Your task to perform on an android device: turn vacation reply on in the gmail app Image 0: 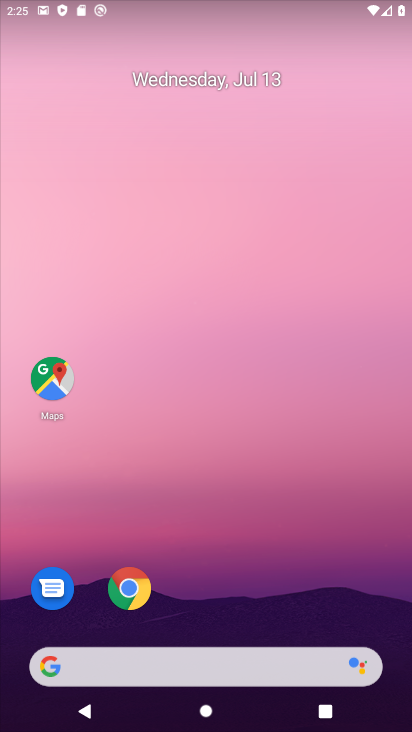
Step 0: drag from (231, 708) to (123, 244)
Your task to perform on an android device: turn vacation reply on in the gmail app Image 1: 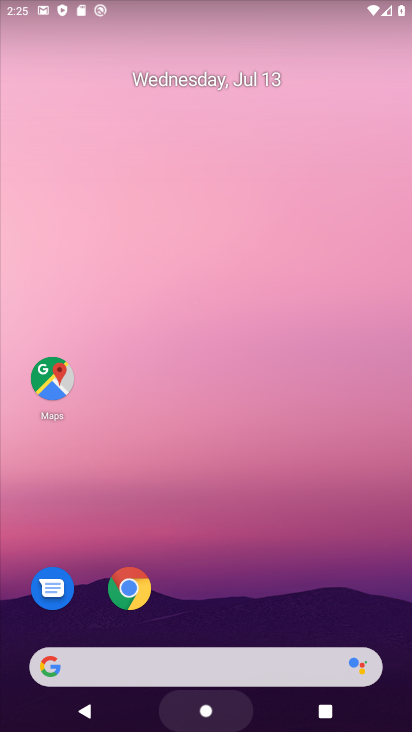
Step 1: click (182, 340)
Your task to perform on an android device: turn vacation reply on in the gmail app Image 2: 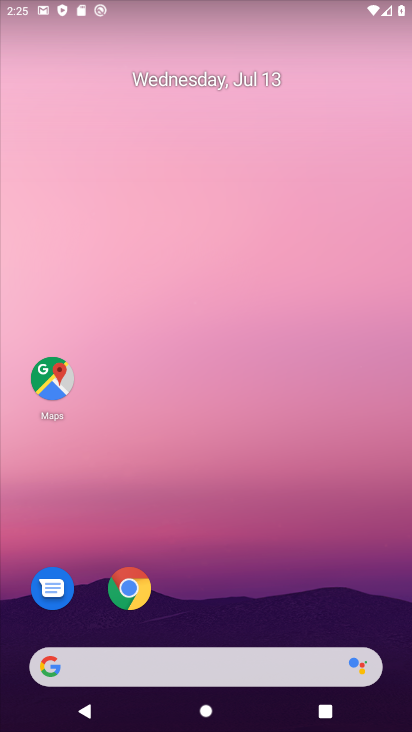
Step 2: drag from (211, 422) to (210, 339)
Your task to perform on an android device: turn vacation reply on in the gmail app Image 3: 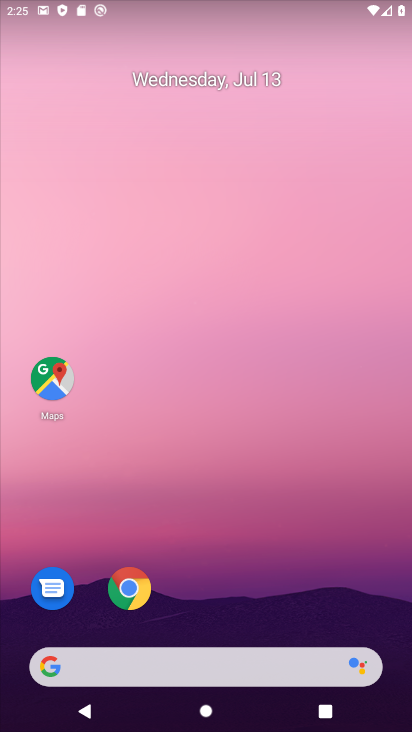
Step 3: drag from (235, 680) to (146, 321)
Your task to perform on an android device: turn vacation reply on in the gmail app Image 4: 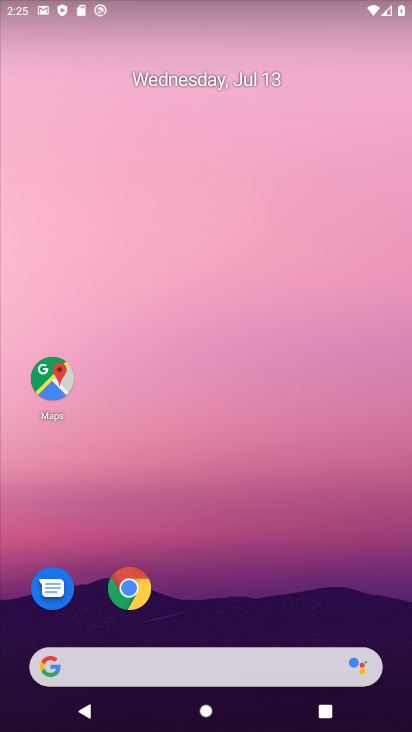
Step 4: drag from (355, 640) to (222, 116)
Your task to perform on an android device: turn vacation reply on in the gmail app Image 5: 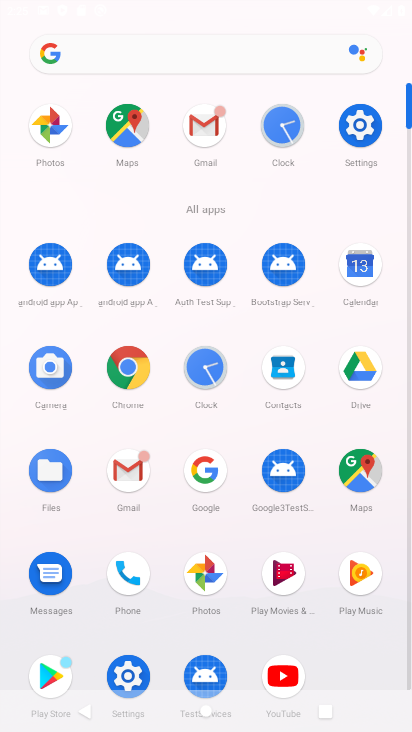
Step 5: drag from (270, 551) to (214, 109)
Your task to perform on an android device: turn vacation reply on in the gmail app Image 6: 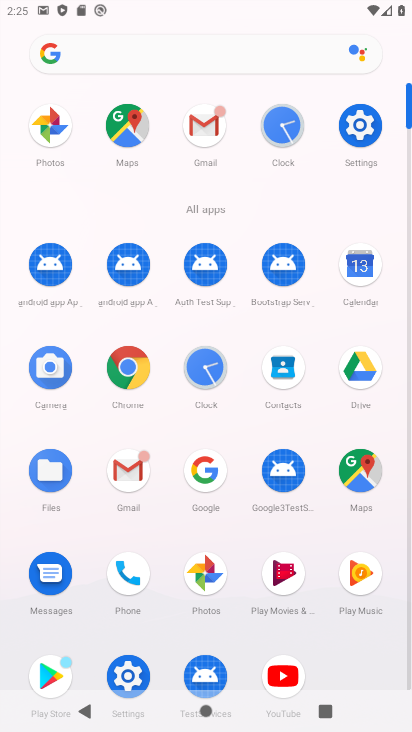
Step 6: drag from (187, 584) to (162, 302)
Your task to perform on an android device: turn vacation reply on in the gmail app Image 7: 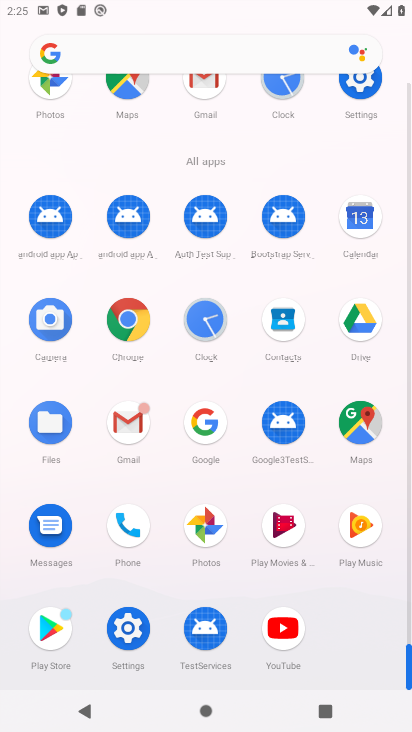
Step 7: click (116, 423)
Your task to perform on an android device: turn vacation reply on in the gmail app Image 8: 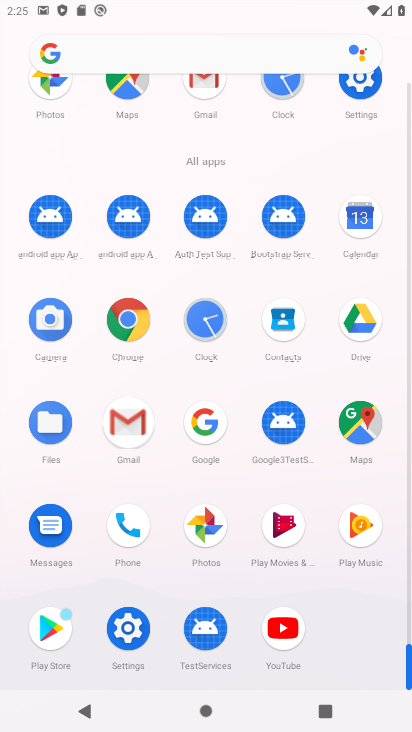
Step 8: click (125, 418)
Your task to perform on an android device: turn vacation reply on in the gmail app Image 9: 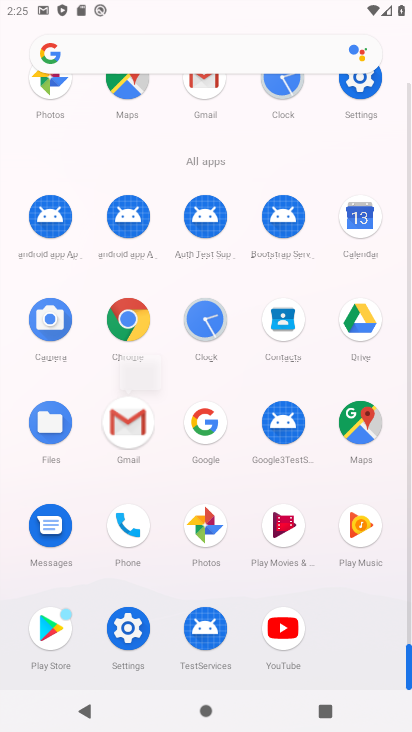
Step 9: click (114, 425)
Your task to perform on an android device: turn vacation reply on in the gmail app Image 10: 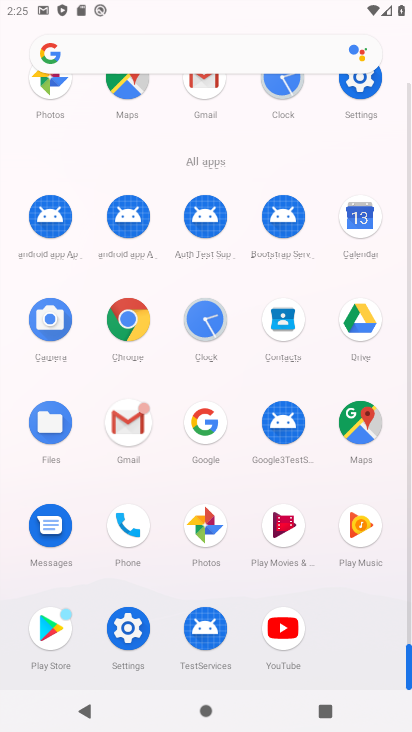
Step 10: click (115, 423)
Your task to perform on an android device: turn vacation reply on in the gmail app Image 11: 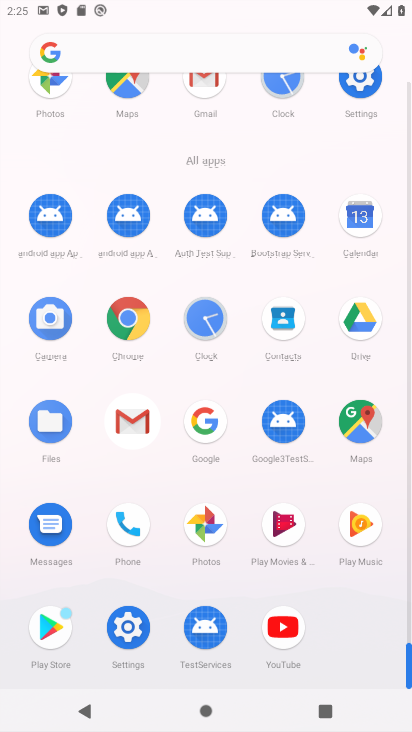
Step 11: click (115, 423)
Your task to perform on an android device: turn vacation reply on in the gmail app Image 12: 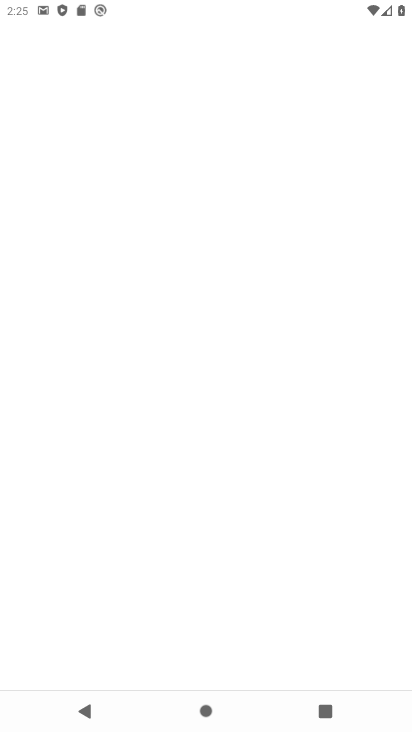
Step 12: click (125, 413)
Your task to perform on an android device: turn vacation reply on in the gmail app Image 13: 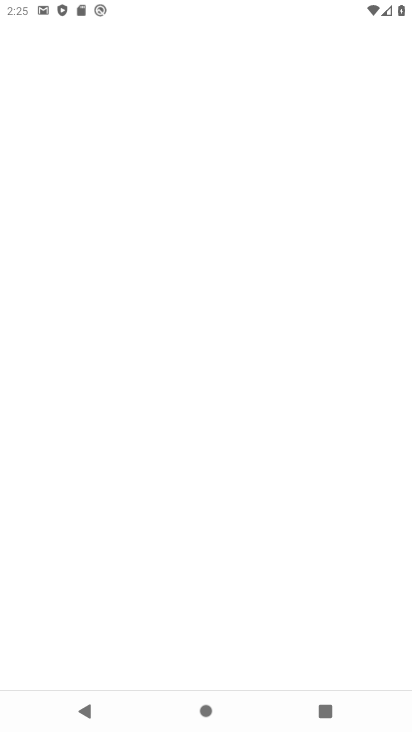
Step 13: click (133, 416)
Your task to perform on an android device: turn vacation reply on in the gmail app Image 14: 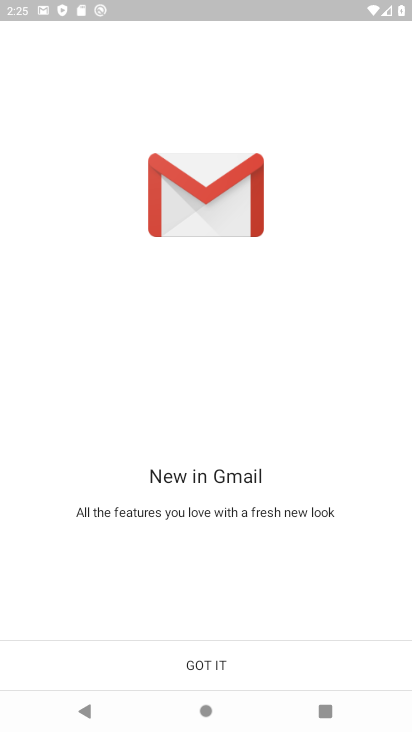
Step 14: click (218, 662)
Your task to perform on an android device: turn vacation reply on in the gmail app Image 15: 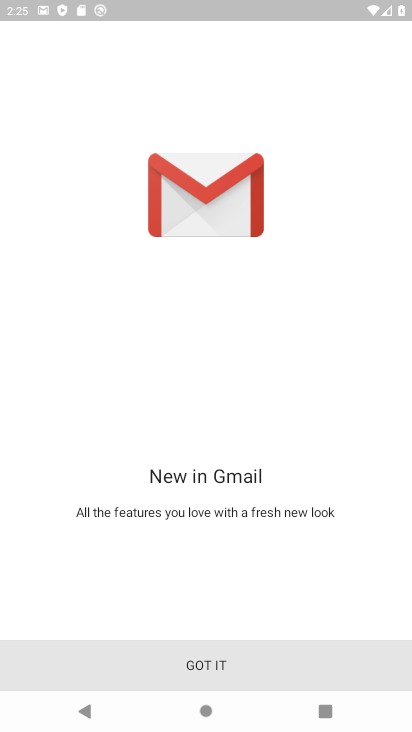
Step 15: click (218, 662)
Your task to perform on an android device: turn vacation reply on in the gmail app Image 16: 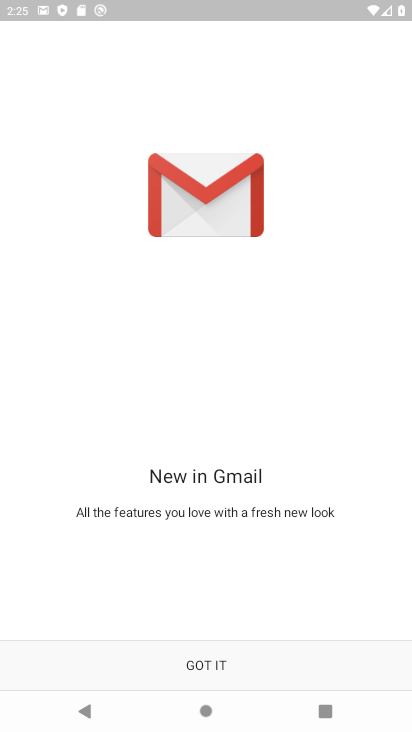
Step 16: click (219, 662)
Your task to perform on an android device: turn vacation reply on in the gmail app Image 17: 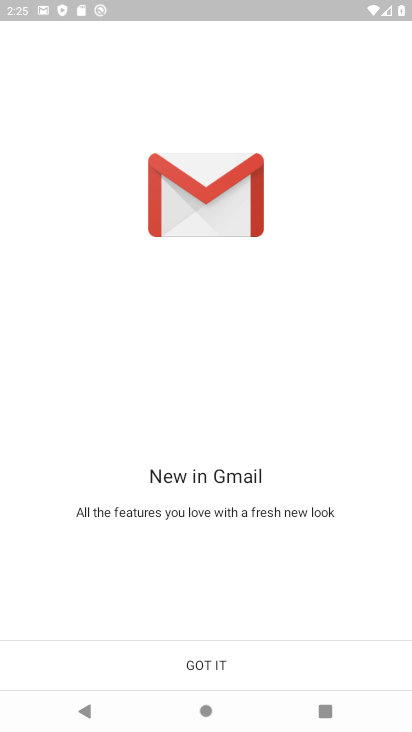
Step 17: click (220, 662)
Your task to perform on an android device: turn vacation reply on in the gmail app Image 18: 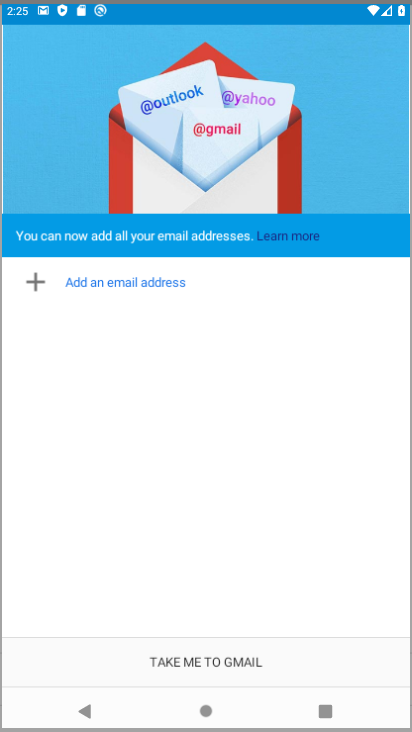
Step 18: click (221, 663)
Your task to perform on an android device: turn vacation reply on in the gmail app Image 19: 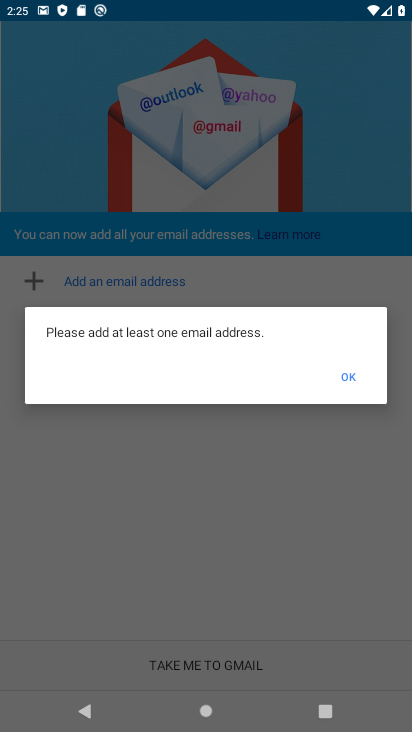
Step 19: click (221, 663)
Your task to perform on an android device: turn vacation reply on in the gmail app Image 20: 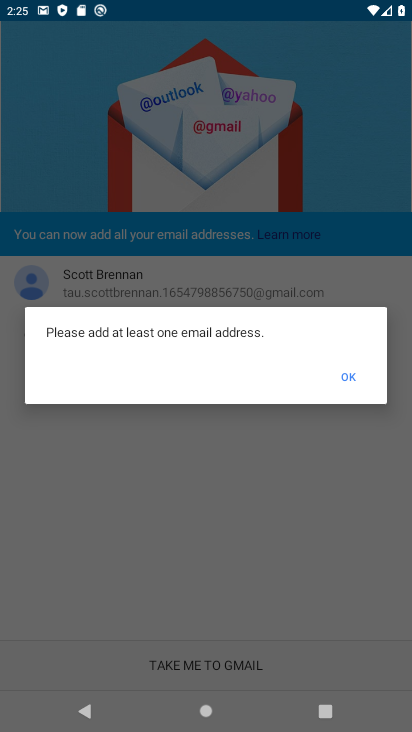
Step 20: click (221, 663)
Your task to perform on an android device: turn vacation reply on in the gmail app Image 21: 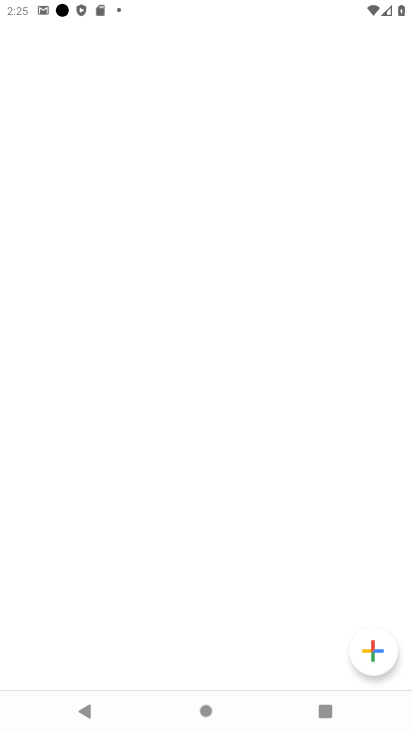
Step 21: click (226, 649)
Your task to perform on an android device: turn vacation reply on in the gmail app Image 22: 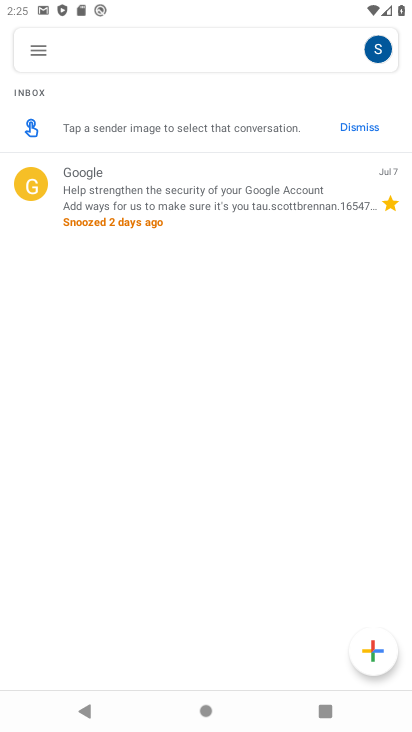
Step 22: click (38, 55)
Your task to perform on an android device: turn vacation reply on in the gmail app Image 23: 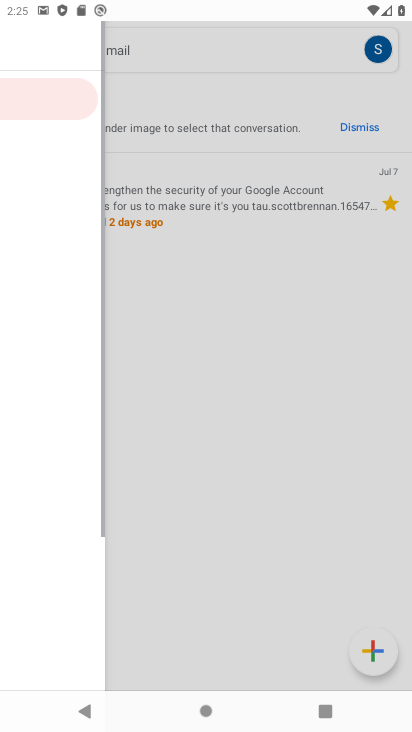
Step 23: click (38, 58)
Your task to perform on an android device: turn vacation reply on in the gmail app Image 24: 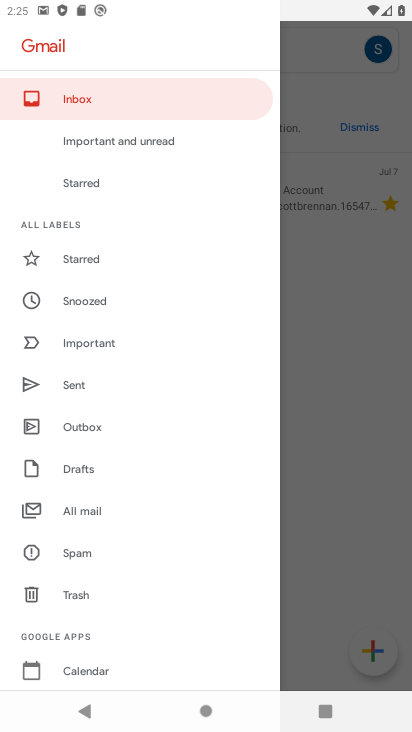
Step 24: drag from (93, 614) to (75, 256)
Your task to perform on an android device: turn vacation reply on in the gmail app Image 25: 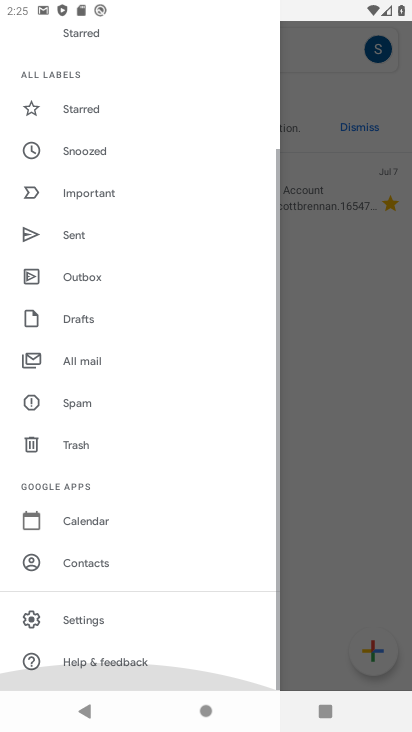
Step 25: drag from (118, 581) to (108, 275)
Your task to perform on an android device: turn vacation reply on in the gmail app Image 26: 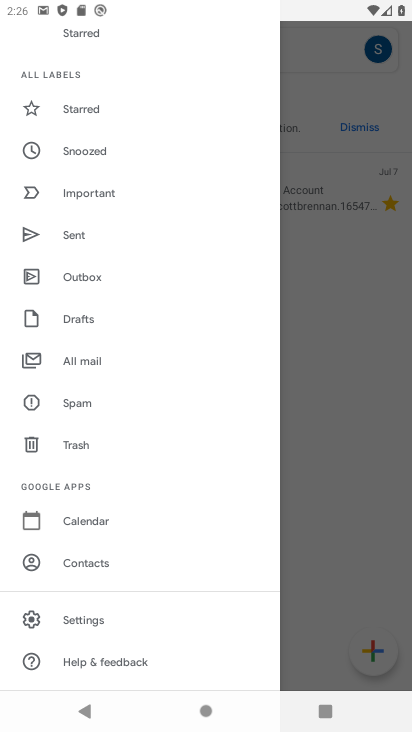
Step 26: drag from (125, 412) to (64, 169)
Your task to perform on an android device: turn vacation reply on in the gmail app Image 27: 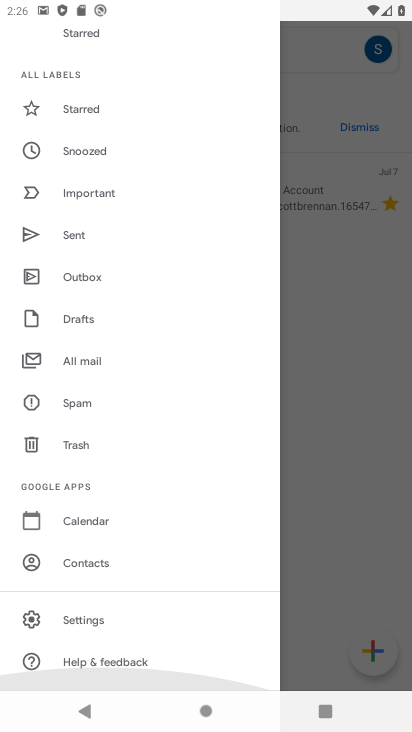
Step 27: drag from (80, 328) to (56, 232)
Your task to perform on an android device: turn vacation reply on in the gmail app Image 28: 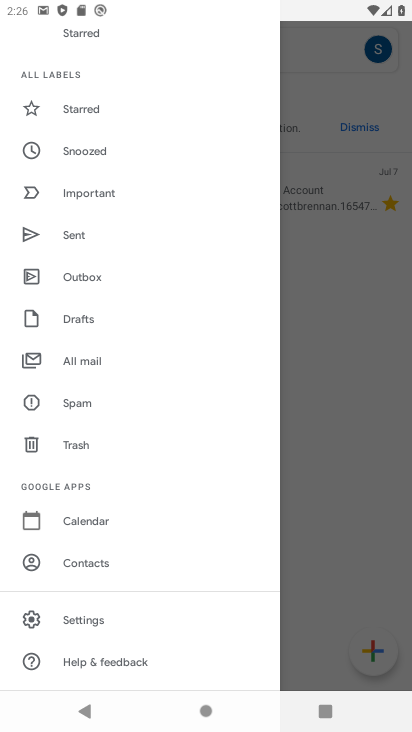
Step 28: click (73, 610)
Your task to perform on an android device: turn vacation reply on in the gmail app Image 29: 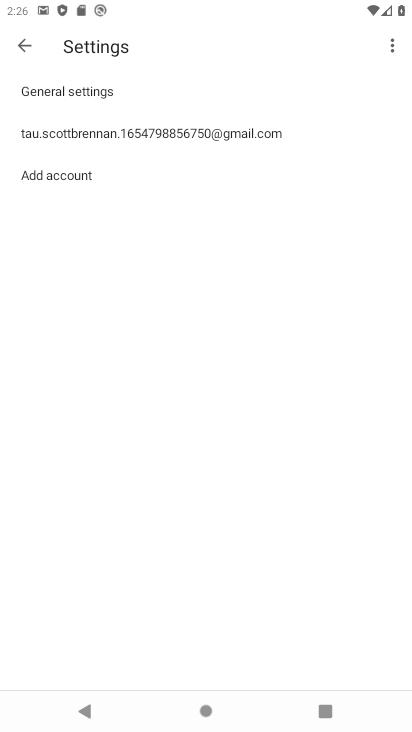
Step 29: click (108, 132)
Your task to perform on an android device: turn vacation reply on in the gmail app Image 30: 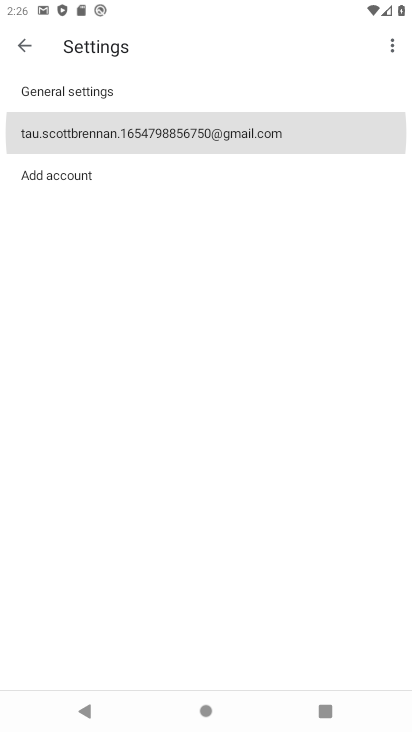
Step 30: click (108, 132)
Your task to perform on an android device: turn vacation reply on in the gmail app Image 31: 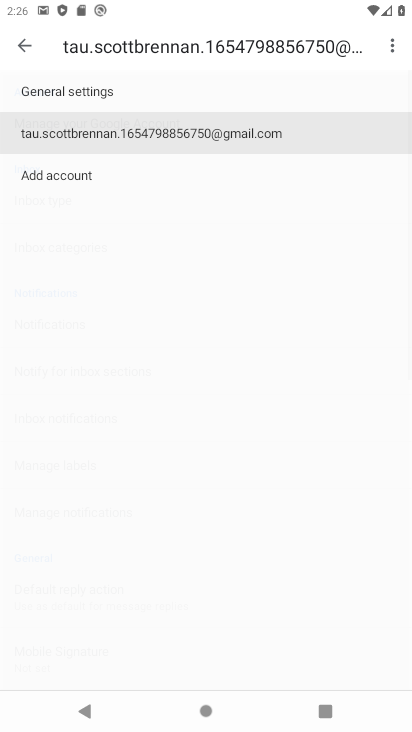
Step 31: click (108, 132)
Your task to perform on an android device: turn vacation reply on in the gmail app Image 32: 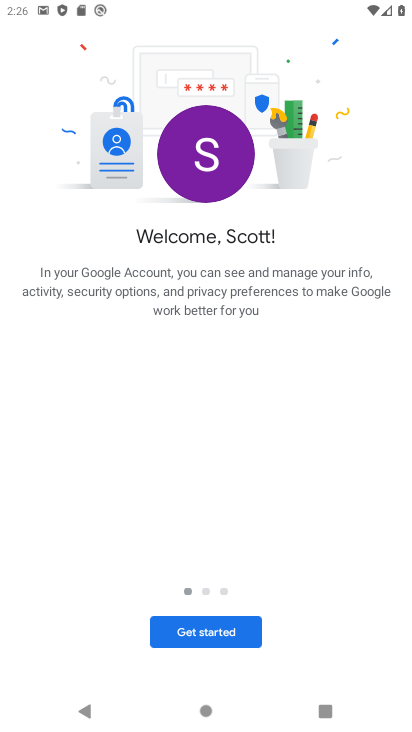
Step 32: press back button
Your task to perform on an android device: turn vacation reply on in the gmail app Image 33: 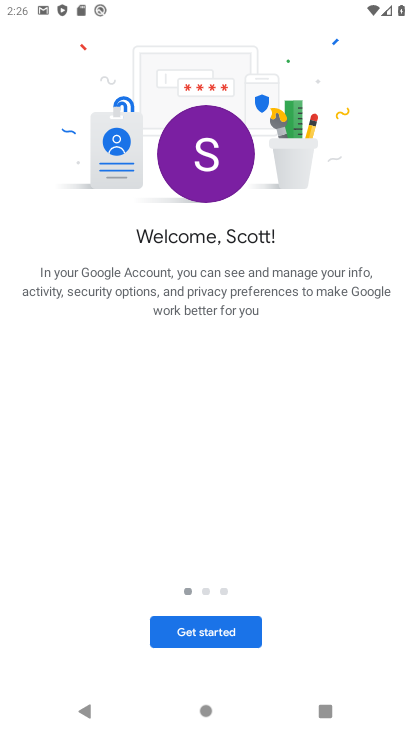
Step 33: press back button
Your task to perform on an android device: turn vacation reply on in the gmail app Image 34: 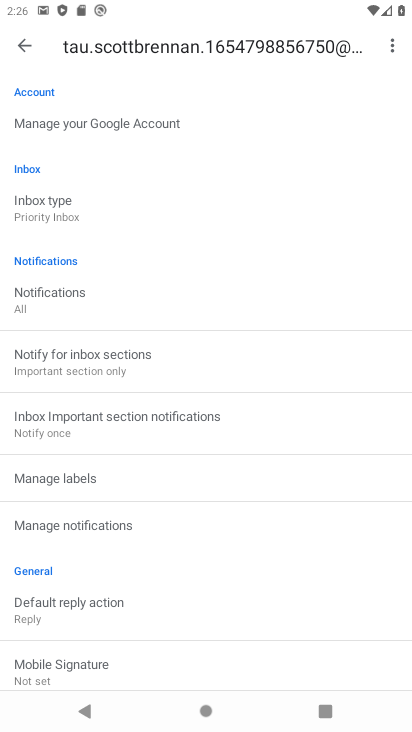
Step 34: click (21, 46)
Your task to perform on an android device: turn vacation reply on in the gmail app Image 35: 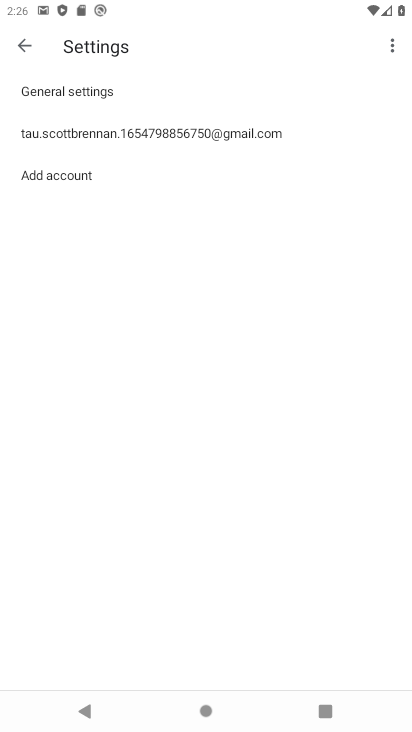
Step 35: click (88, 130)
Your task to perform on an android device: turn vacation reply on in the gmail app Image 36: 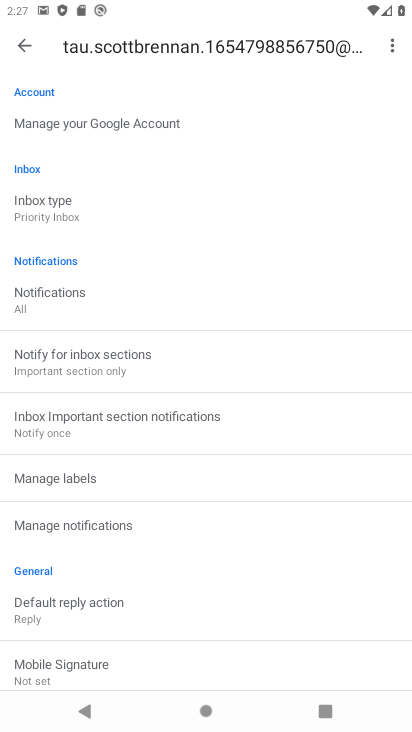
Step 36: drag from (81, 500) to (68, 150)
Your task to perform on an android device: turn vacation reply on in the gmail app Image 37: 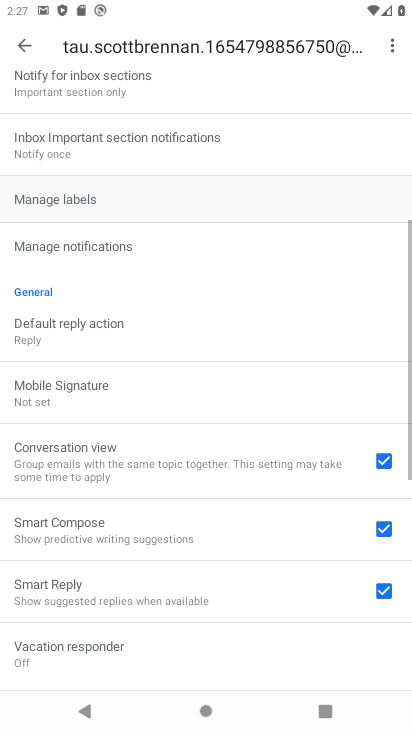
Step 37: drag from (136, 475) to (136, 332)
Your task to perform on an android device: turn vacation reply on in the gmail app Image 38: 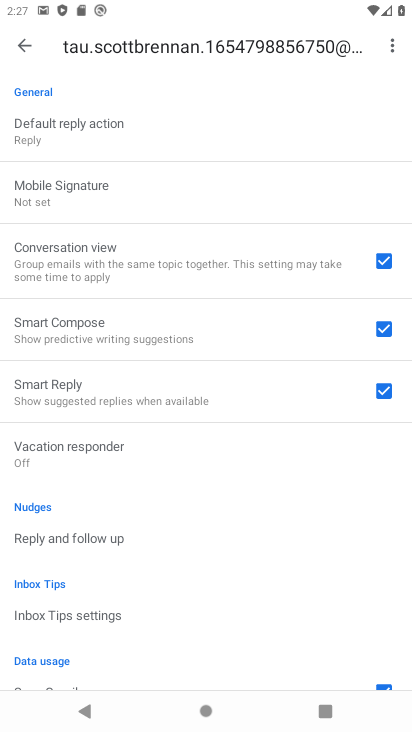
Step 38: click (84, 438)
Your task to perform on an android device: turn vacation reply on in the gmail app Image 39: 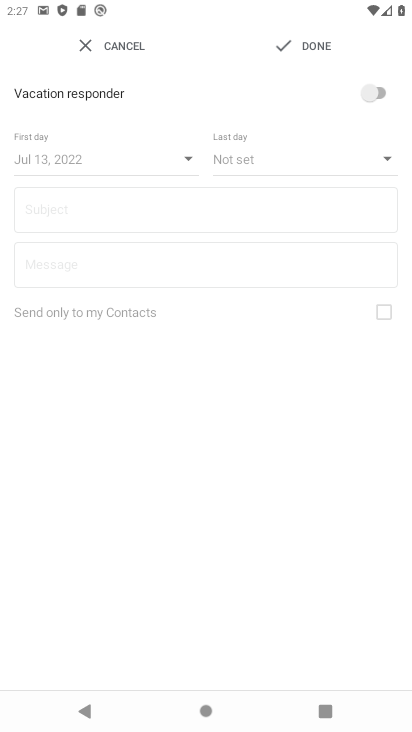
Step 39: click (358, 85)
Your task to perform on an android device: turn vacation reply on in the gmail app Image 40: 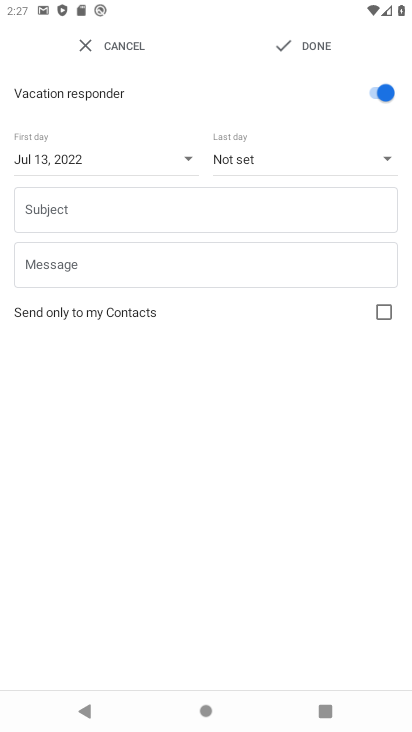
Step 40: task complete